Your task to perform on an android device: Open Maps and search for coffee Image 0: 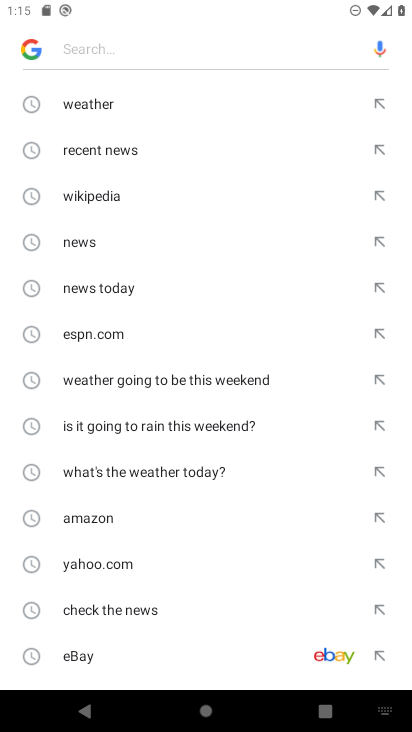
Step 0: press home button
Your task to perform on an android device: Open Maps and search for coffee Image 1: 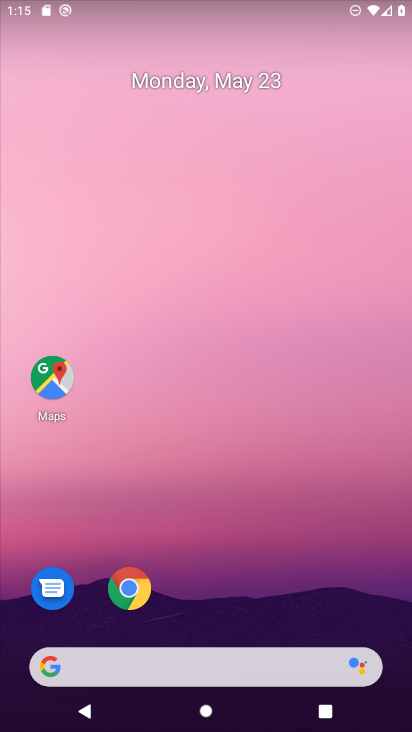
Step 1: click (50, 382)
Your task to perform on an android device: Open Maps and search for coffee Image 2: 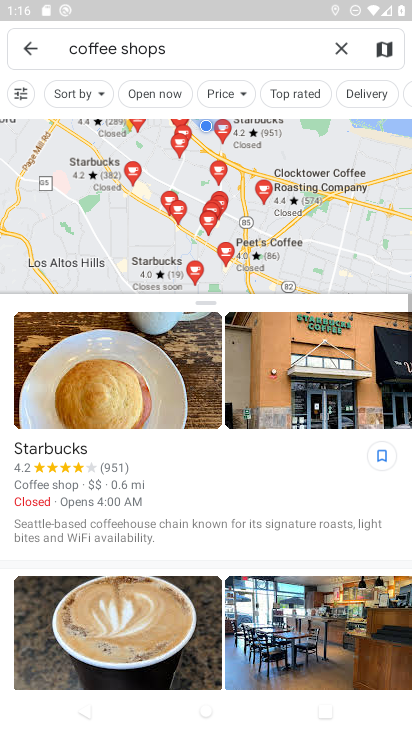
Step 2: click (345, 50)
Your task to perform on an android device: Open Maps and search for coffee Image 3: 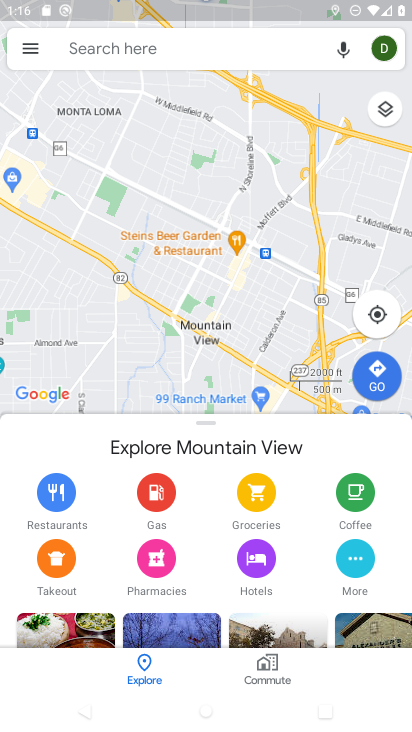
Step 3: click (206, 50)
Your task to perform on an android device: Open Maps and search for coffee Image 4: 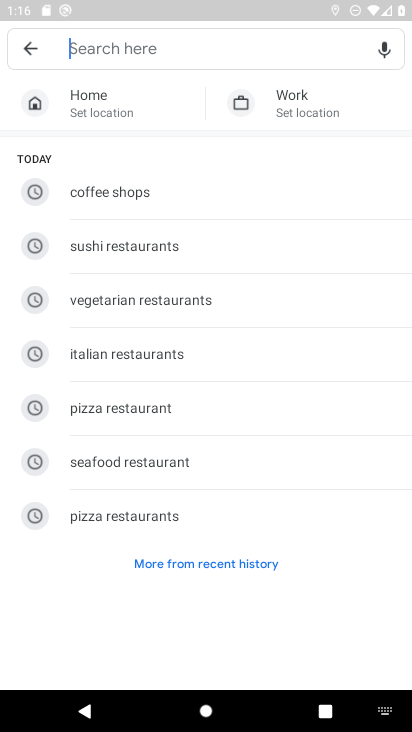
Step 4: click (105, 187)
Your task to perform on an android device: Open Maps and search for coffee Image 5: 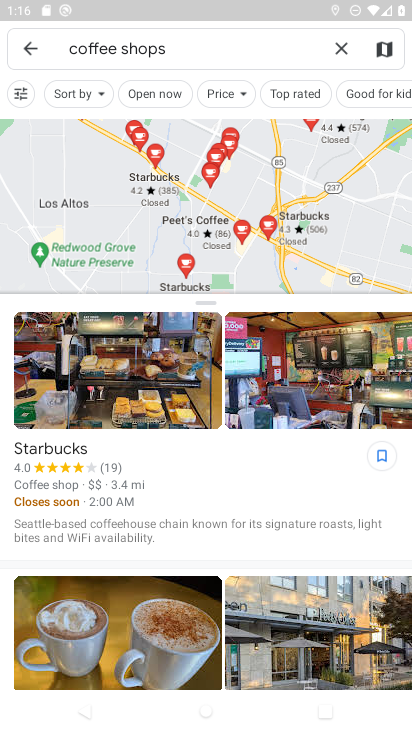
Step 5: task complete